Your task to perform on an android device: Open Google Chrome and open the bookmarks view Image 0: 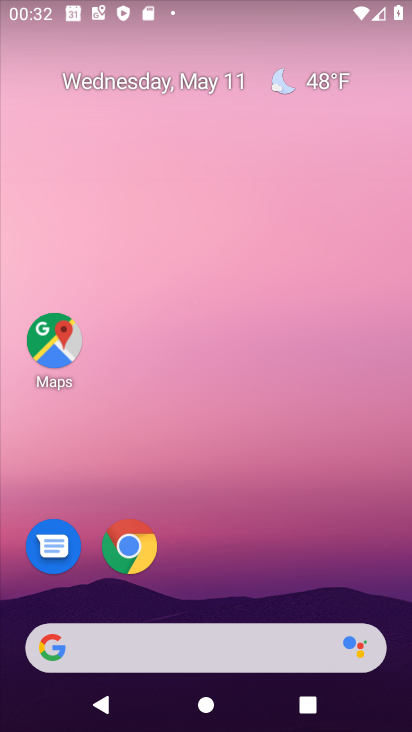
Step 0: click (120, 554)
Your task to perform on an android device: Open Google Chrome and open the bookmarks view Image 1: 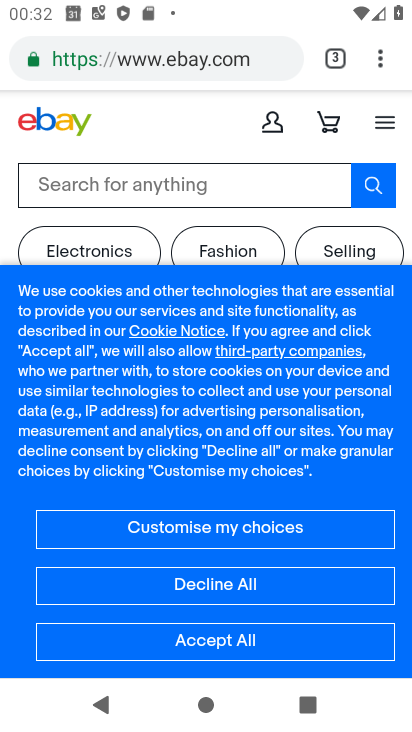
Step 1: click (379, 64)
Your task to perform on an android device: Open Google Chrome and open the bookmarks view Image 2: 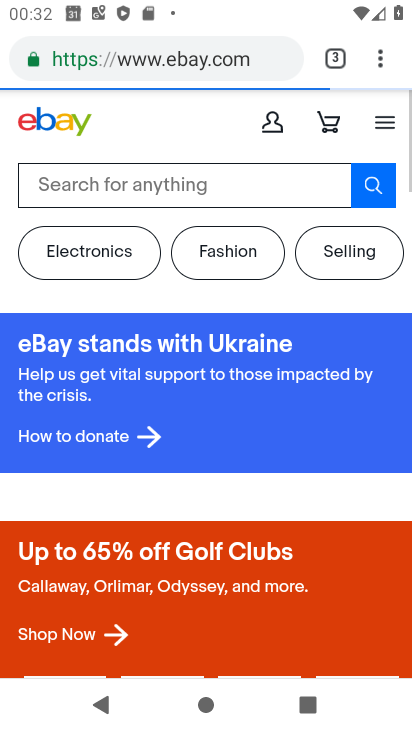
Step 2: task complete